Your task to perform on an android device: turn off wifi Image 0: 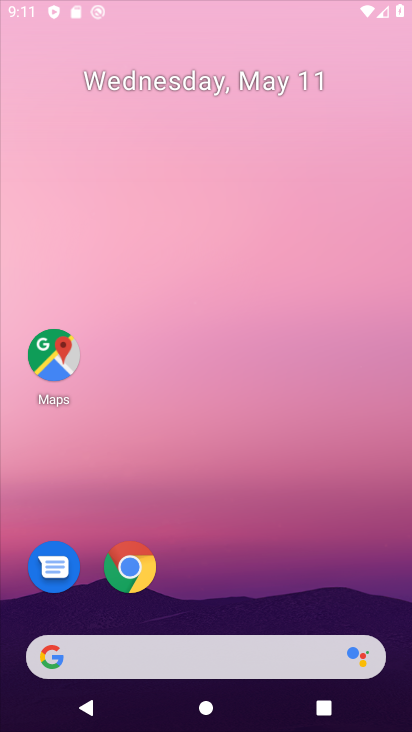
Step 0: click (140, 558)
Your task to perform on an android device: turn off wifi Image 1: 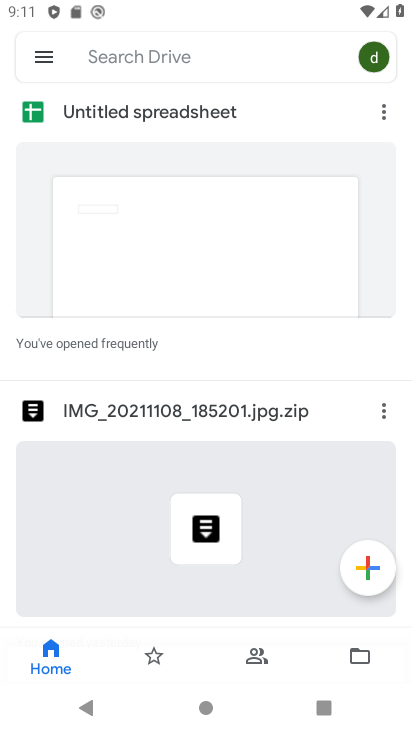
Step 1: press home button
Your task to perform on an android device: turn off wifi Image 2: 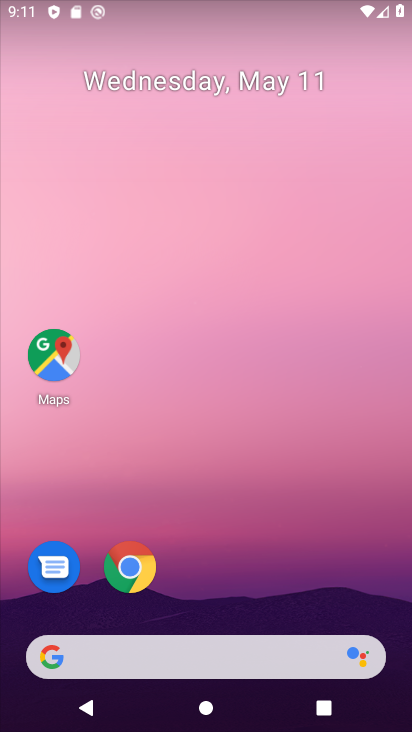
Step 2: drag from (282, 703) to (278, 99)
Your task to perform on an android device: turn off wifi Image 3: 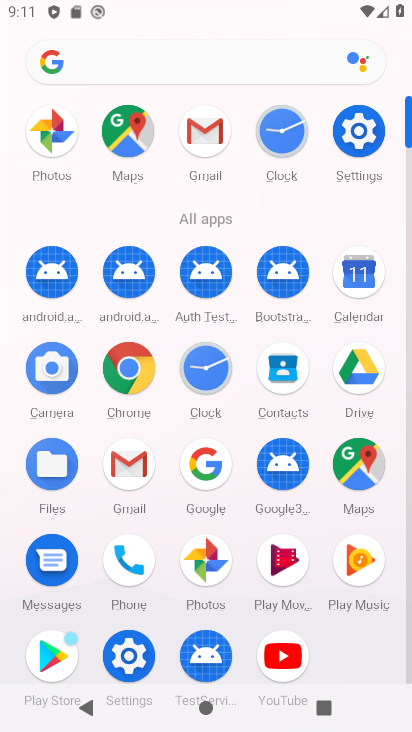
Step 3: click (361, 134)
Your task to perform on an android device: turn off wifi Image 4: 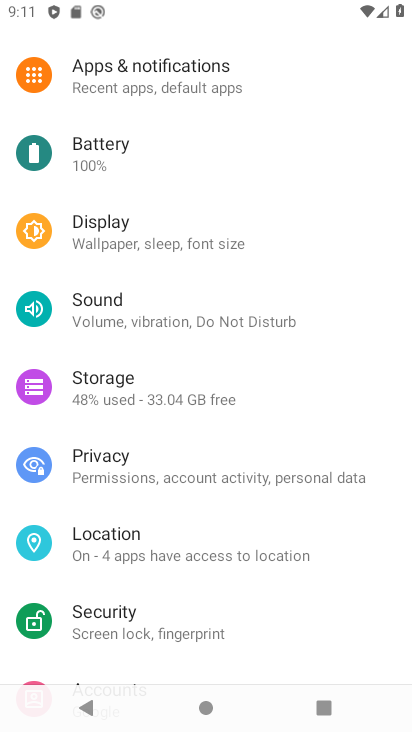
Step 4: drag from (240, 176) to (245, 664)
Your task to perform on an android device: turn off wifi Image 5: 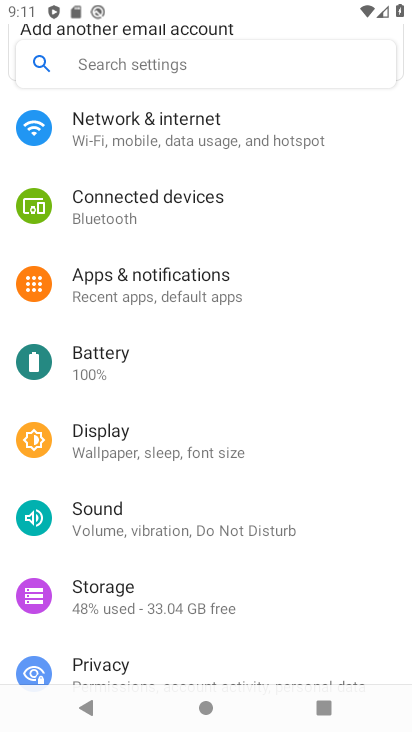
Step 5: click (274, 132)
Your task to perform on an android device: turn off wifi Image 6: 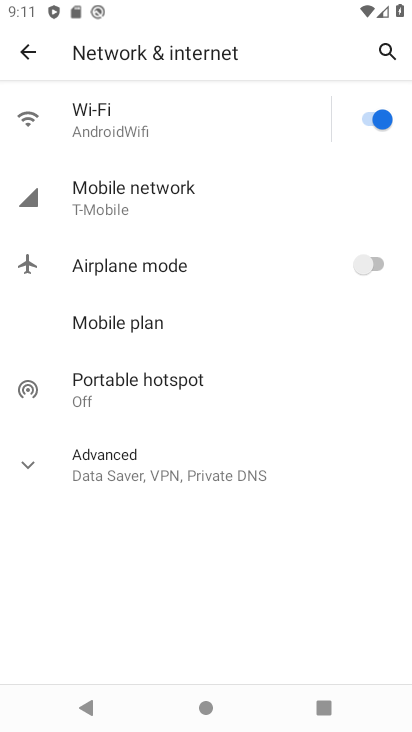
Step 6: click (374, 119)
Your task to perform on an android device: turn off wifi Image 7: 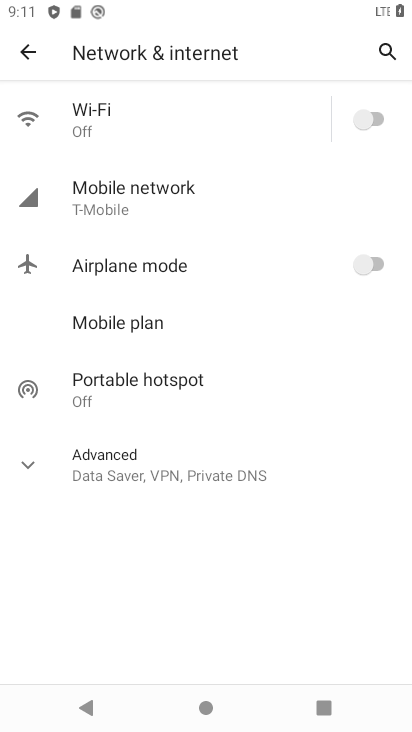
Step 7: task complete